Your task to perform on an android device: turn off priority inbox in the gmail app Image 0: 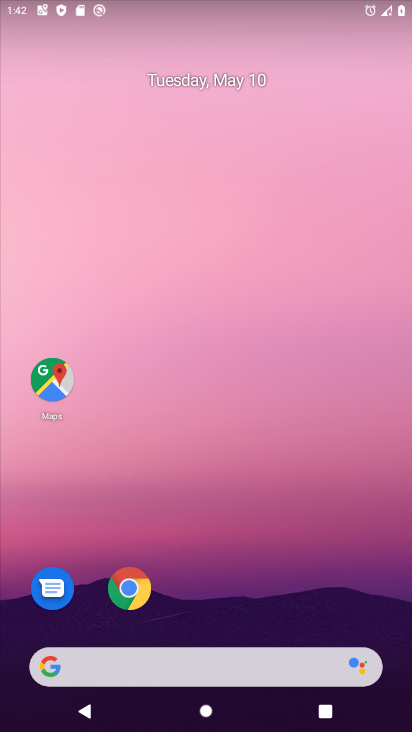
Step 0: click (318, 293)
Your task to perform on an android device: turn off priority inbox in the gmail app Image 1: 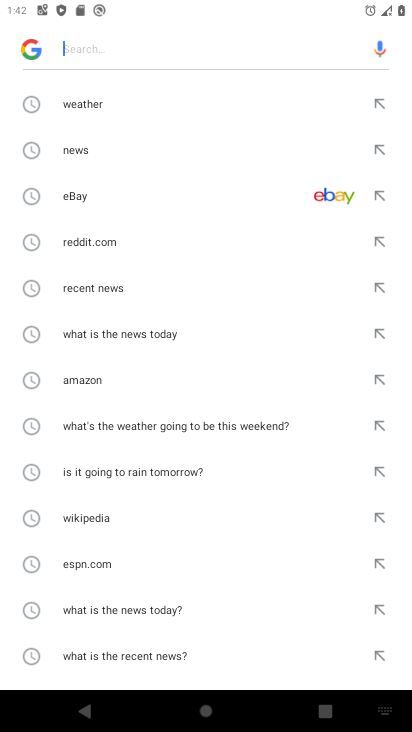
Step 1: press home button
Your task to perform on an android device: turn off priority inbox in the gmail app Image 2: 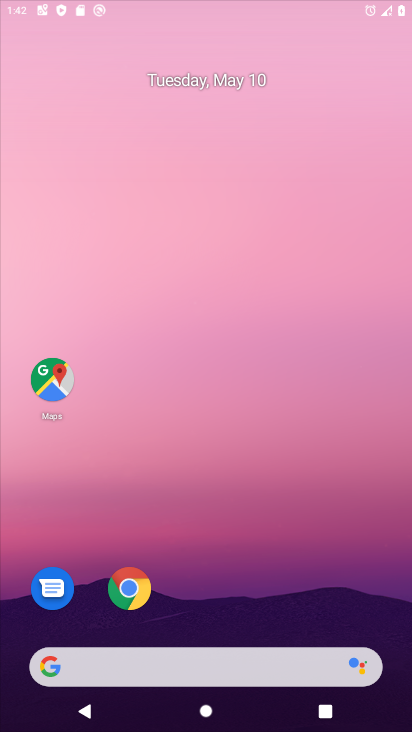
Step 2: drag from (233, 555) to (246, 264)
Your task to perform on an android device: turn off priority inbox in the gmail app Image 3: 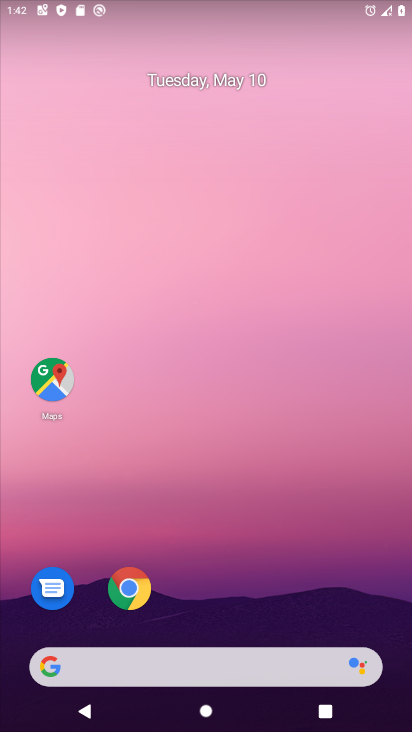
Step 3: drag from (272, 573) to (276, 241)
Your task to perform on an android device: turn off priority inbox in the gmail app Image 4: 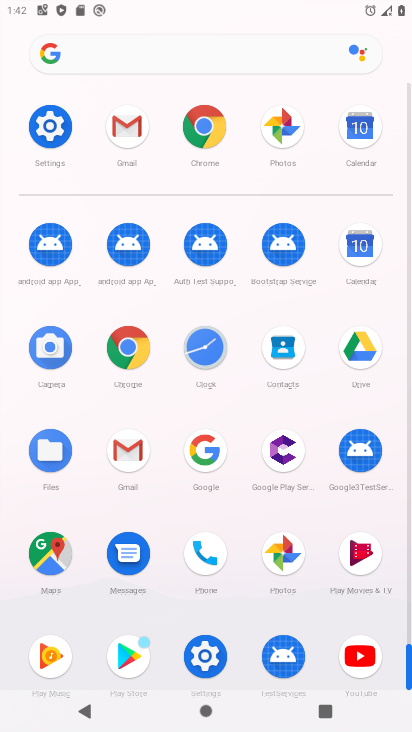
Step 4: click (130, 129)
Your task to perform on an android device: turn off priority inbox in the gmail app Image 5: 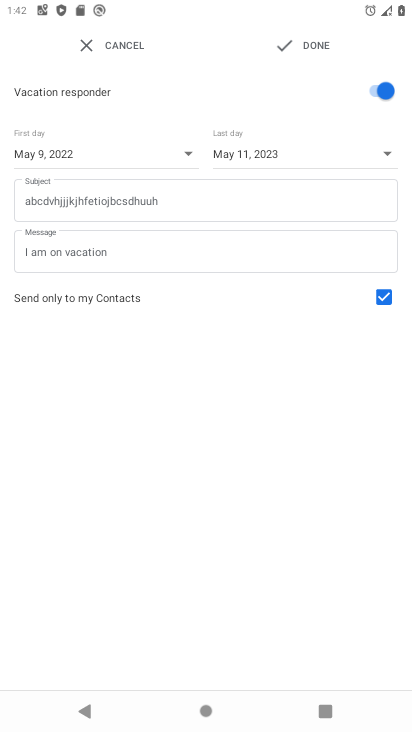
Step 5: press back button
Your task to perform on an android device: turn off priority inbox in the gmail app Image 6: 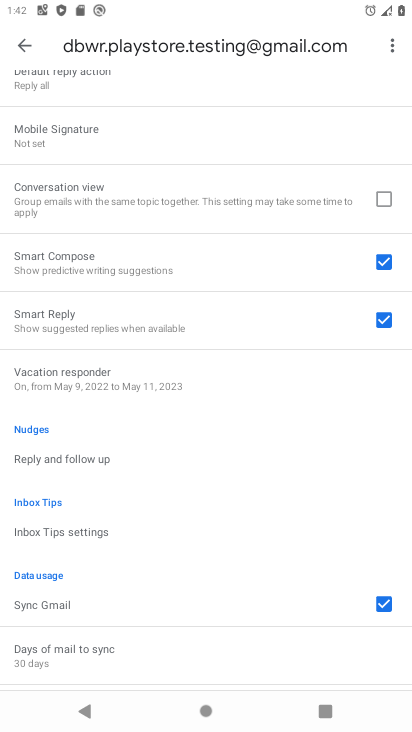
Step 6: drag from (115, 153) to (135, 600)
Your task to perform on an android device: turn off priority inbox in the gmail app Image 7: 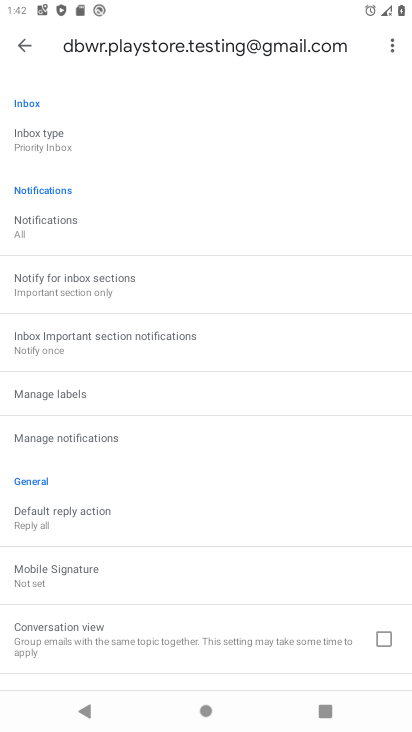
Step 7: click (72, 144)
Your task to perform on an android device: turn off priority inbox in the gmail app Image 8: 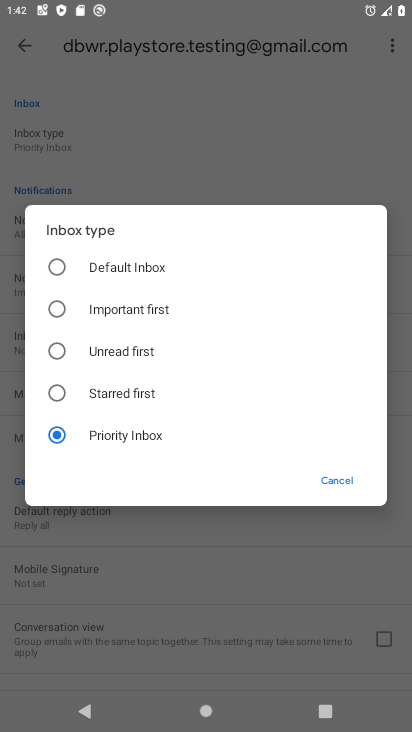
Step 8: click (108, 267)
Your task to perform on an android device: turn off priority inbox in the gmail app Image 9: 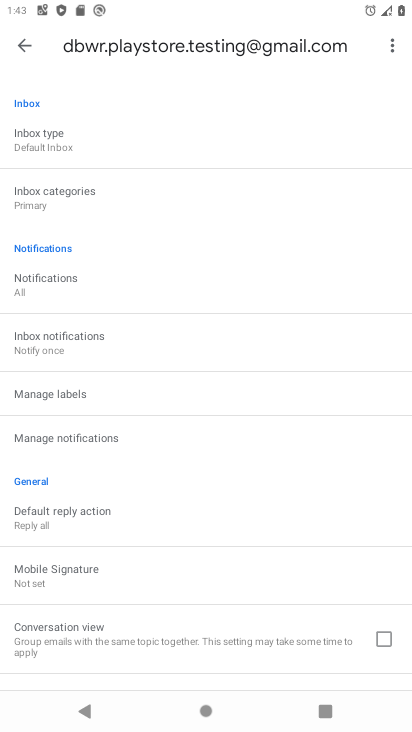
Step 9: task complete